Your task to perform on an android device: Go to internet settings Image 0: 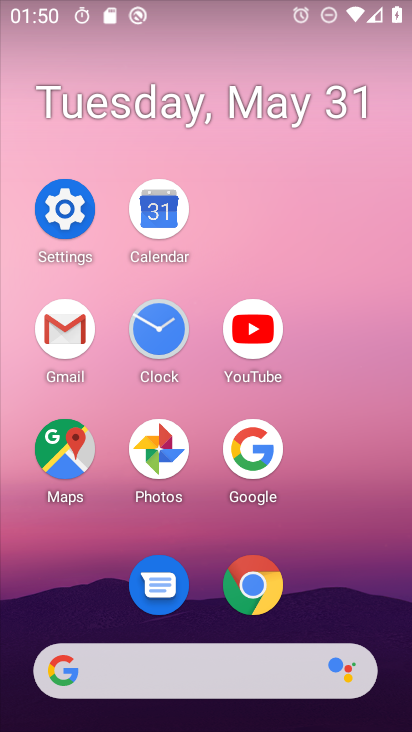
Step 0: click (77, 213)
Your task to perform on an android device: Go to internet settings Image 1: 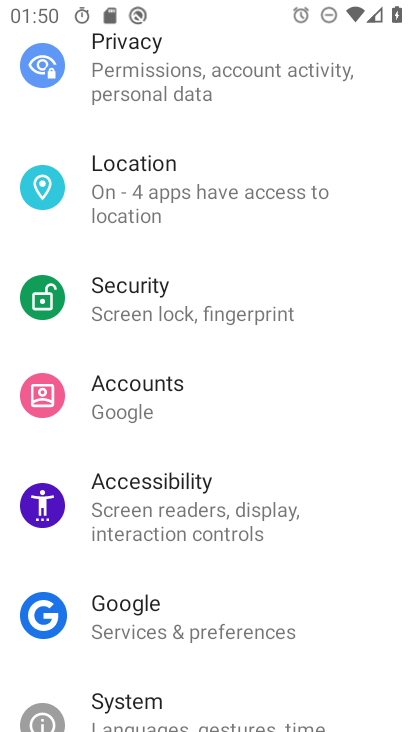
Step 1: drag from (269, 195) to (288, 629)
Your task to perform on an android device: Go to internet settings Image 2: 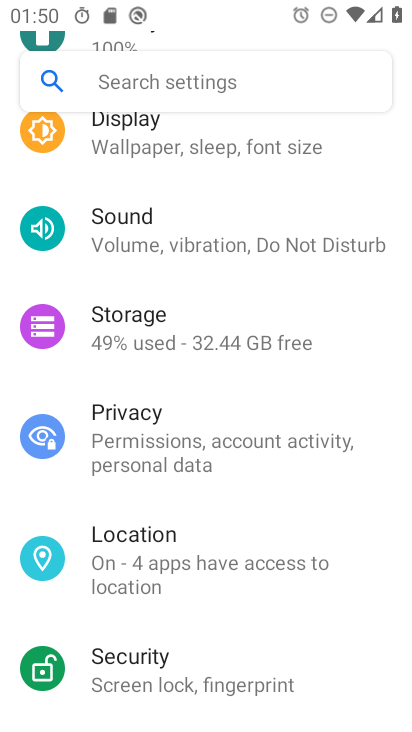
Step 2: drag from (252, 155) to (297, 533)
Your task to perform on an android device: Go to internet settings Image 3: 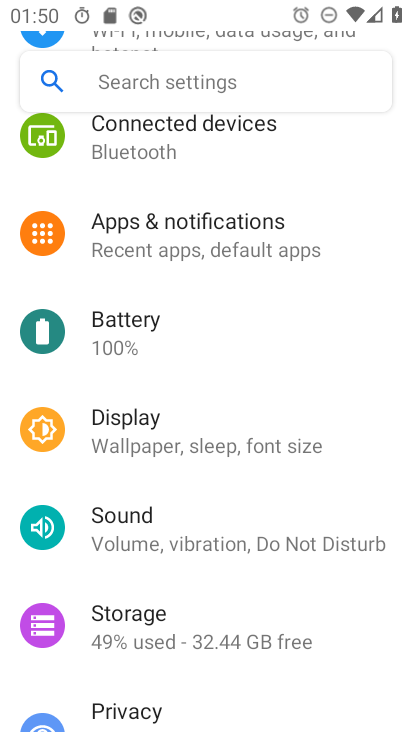
Step 3: drag from (360, 275) to (342, 690)
Your task to perform on an android device: Go to internet settings Image 4: 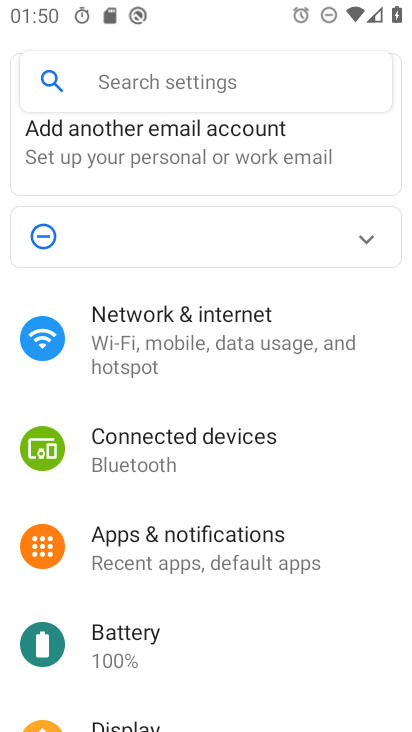
Step 4: click (267, 301)
Your task to perform on an android device: Go to internet settings Image 5: 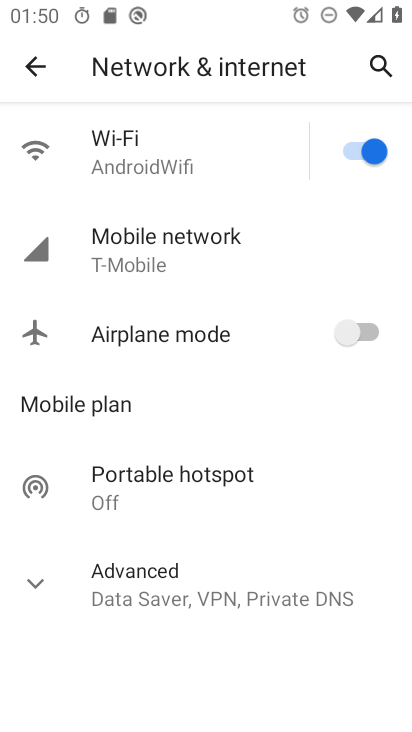
Step 5: task complete